Your task to perform on an android device: Open eBay Image 0: 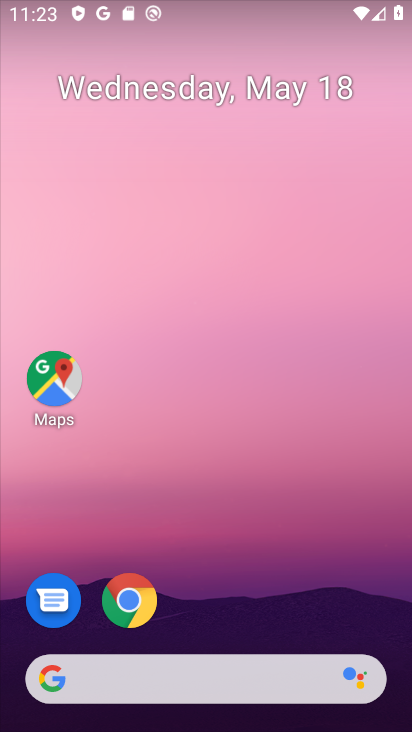
Step 0: drag from (229, 625) to (295, 73)
Your task to perform on an android device: Open eBay Image 1: 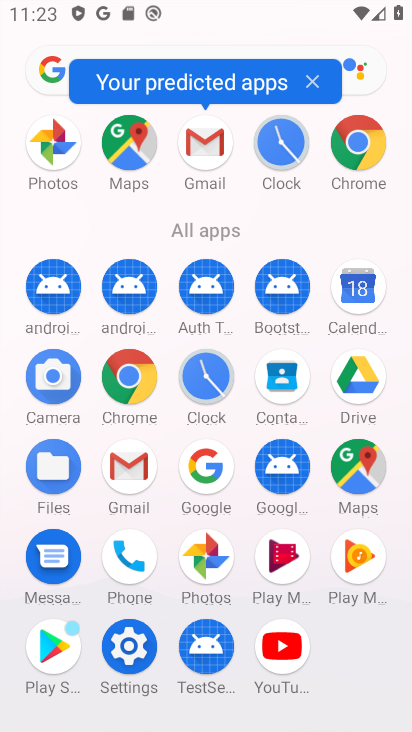
Step 1: click (128, 380)
Your task to perform on an android device: Open eBay Image 2: 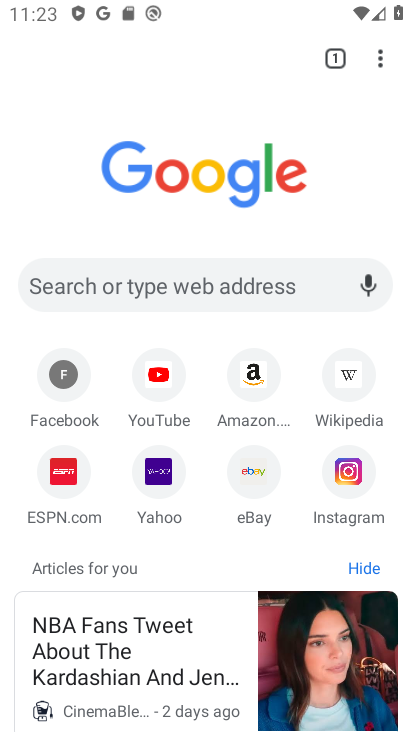
Step 2: click (263, 480)
Your task to perform on an android device: Open eBay Image 3: 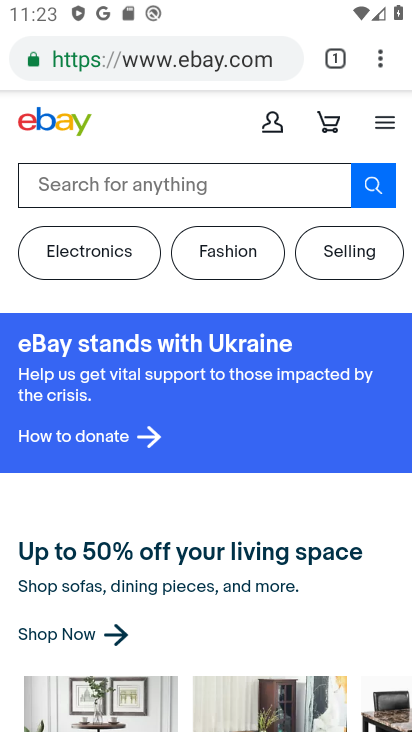
Step 3: task complete